Your task to perform on an android device: toggle priority inbox in the gmail app Image 0: 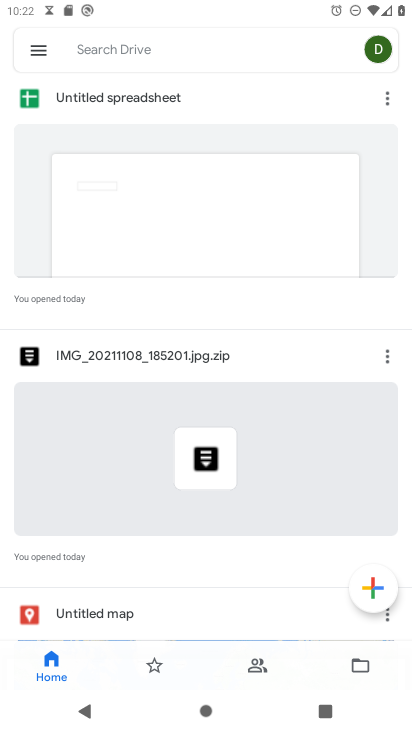
Step 0: press home button
Your task to perform on an android device: toggle priority inbox in the gmail app Image 1: 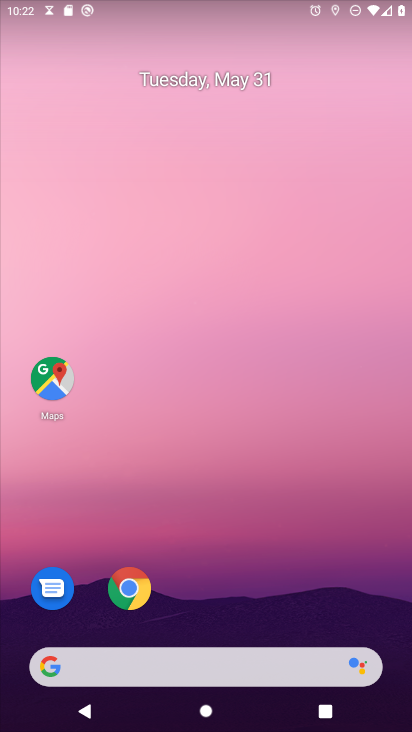
Step 1: drag from (291, 596) to (232, 152)
Your task to perform on an android device: toggle priority inbox in the gmail app Image 2: 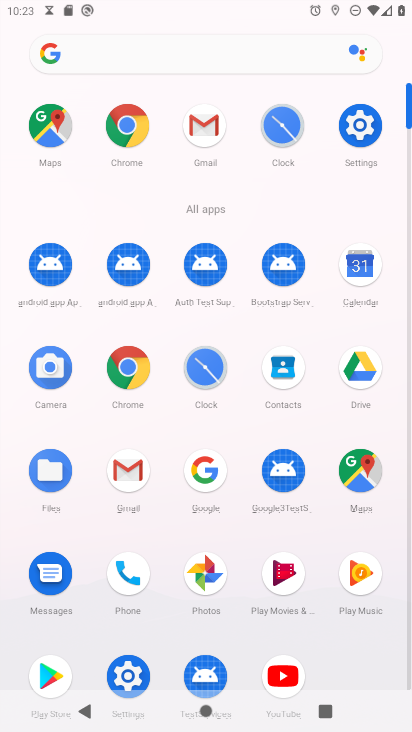
Step 2: click (202, 123)
Your task to perform on an android device: toggle priority inbox in the gmail app Image 3: 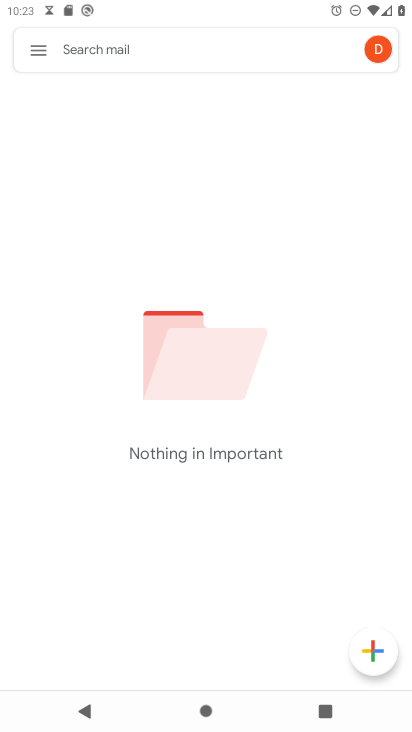
Step 3: click (41, 51)
Your task to perform on an android device: toggle priority inbox in the gmail app Image 4: 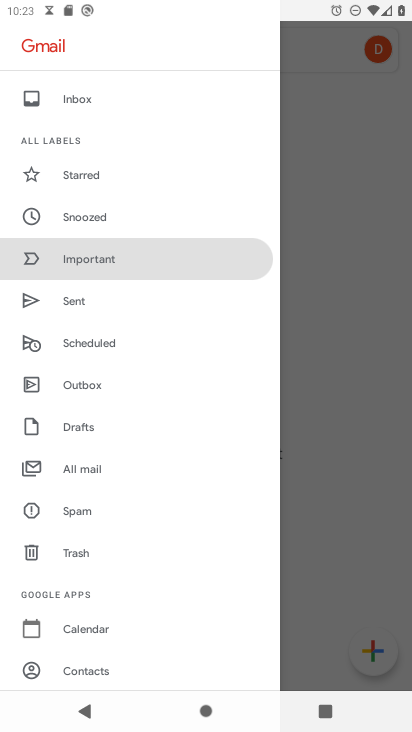
Step 4: drag from (105, 439) to (147, 378)
Your task to perform on an android device: toggle priority inbox in the gmail app Image 5: 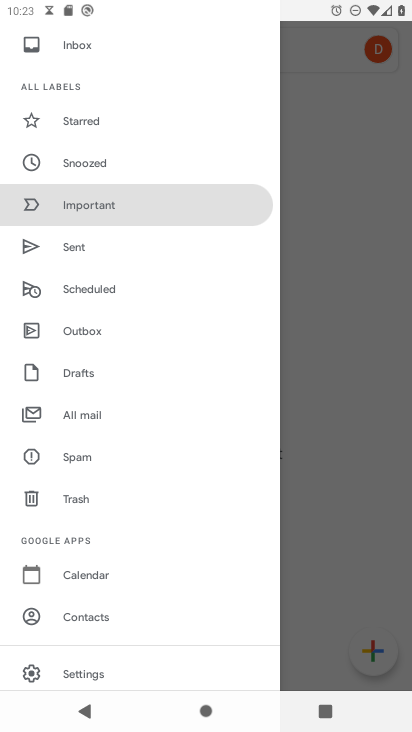
Step 5: drag from (89, 552) to (141, 494)
Your task to perform on an android device: toggle priority inbox in the gmail app Image 6: 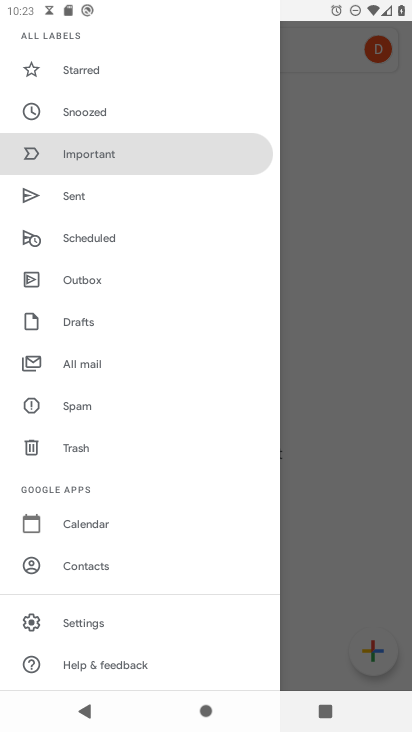
Step 6: click (99, 627)
Your task to perform on an android device: toggle priority inbox in the gmail app Image 7: 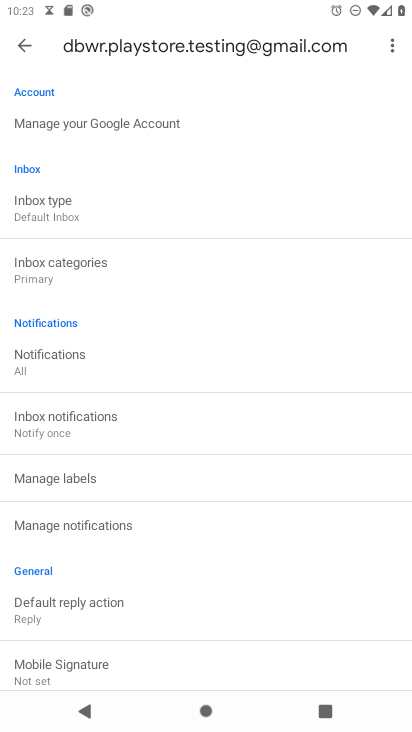
Step 7: click (68, 214)
Your task to perform on an android device: toggle priority inbox in the gmail app Image 8: 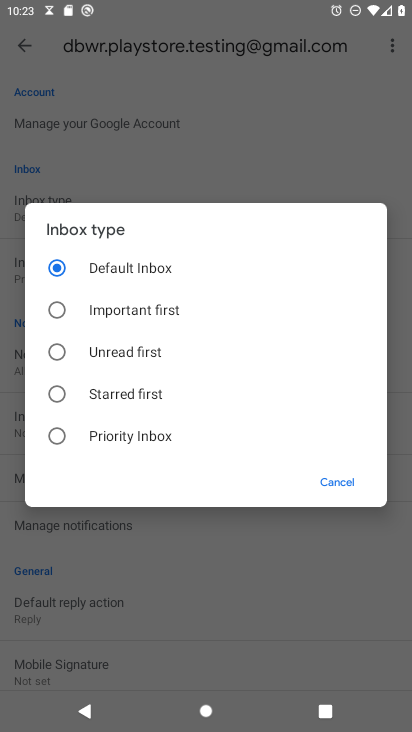
Step 8: click (56, 434)
Your task to perform on an android device: toggle priority inbox in the gmail app Image 9: 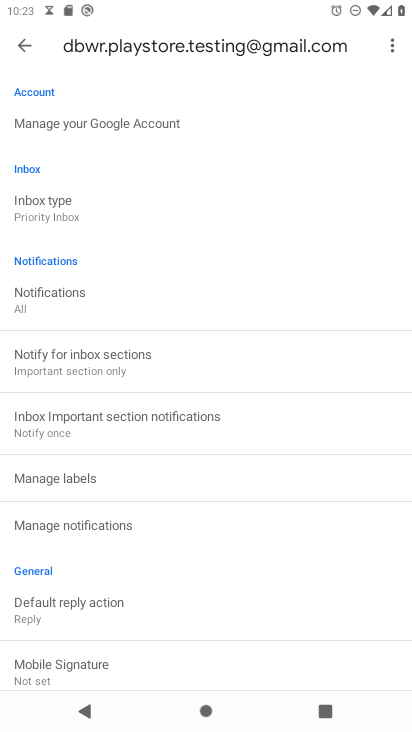
Step 9: task complete